Your task to perform on an android device: open a new tab in the chrome app Image 0: 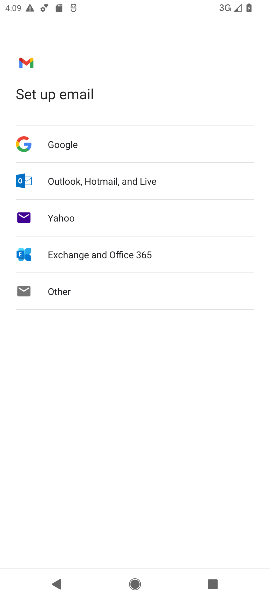
Step 0: press home button
Your task to perform on an android device: open a new tab in the chrome app Image 1: 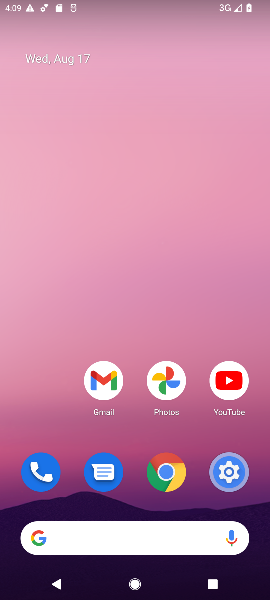
Step 1: click (170, 471)
Your task to perform on an android device: open a new tab in the chrome app Image 2: 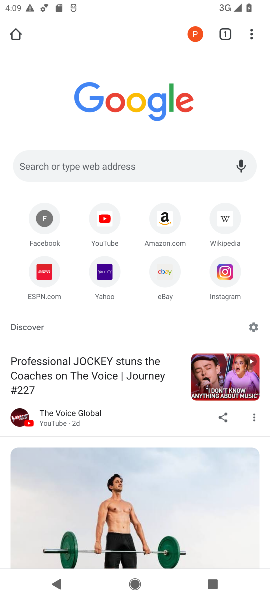
Step 2: click (252, 32)
Your task to perform on an android device: open a new tab in the chrome app Image 3: 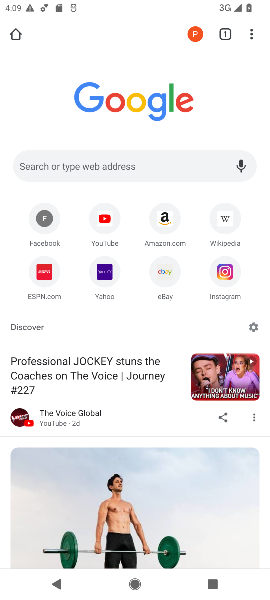
Step 3: click (249, 34)
Your task to perform on an android device: open a new tab in the chrome app Image 4: 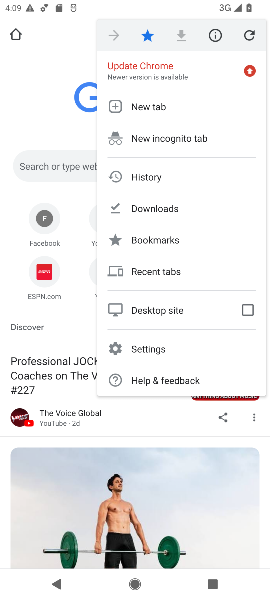
Step 4: click (157, 111)
Your task to perform on an android device: open a new tab in the chrome app Image 5: 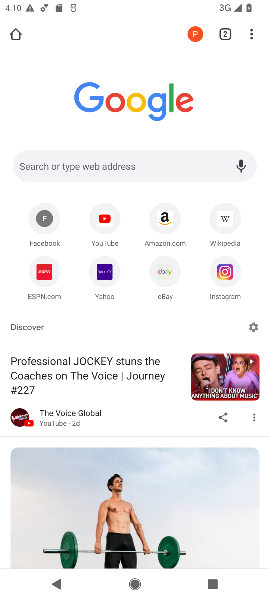
Step 5: task complete